Your task to perform on an android device: Turn on the flashlight Image 0: 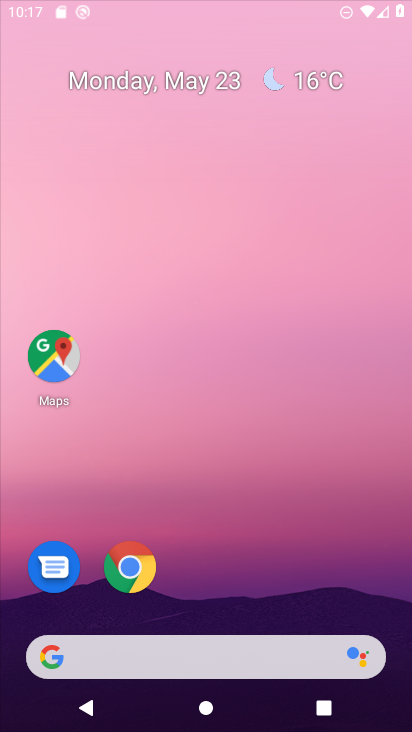
Step 0: click (280, 6)
Your task to perform on an android device: Turn on the flashlight Image 1: 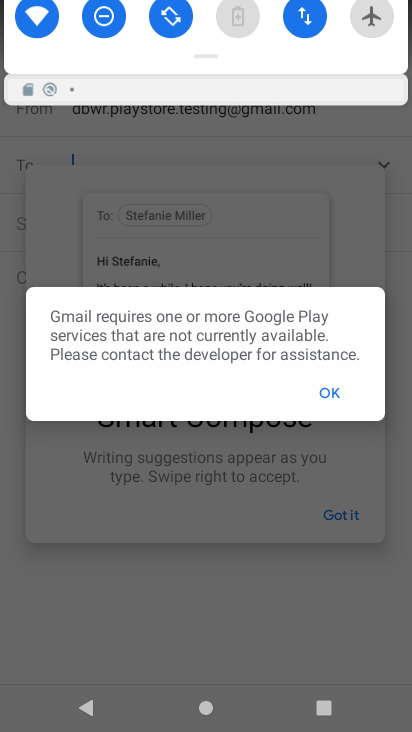
Step 1: drag from (196, 565) to (290, 111)
Your task to perform on an android device: Turn on the flashlight Image 2: 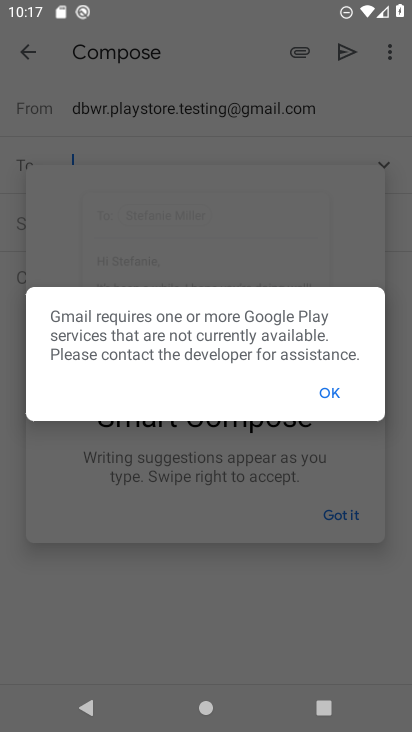
Step 2: press home button
Your task to perform on an android device: Turn on the flashlight Image 3: 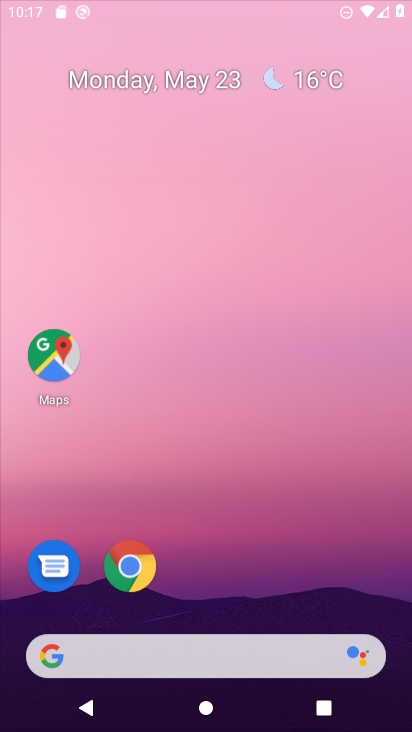
Step 3: drag from (214, 550) to (285, 74)
Your task to perform on an android device: Turn on the flashlight Image 4: 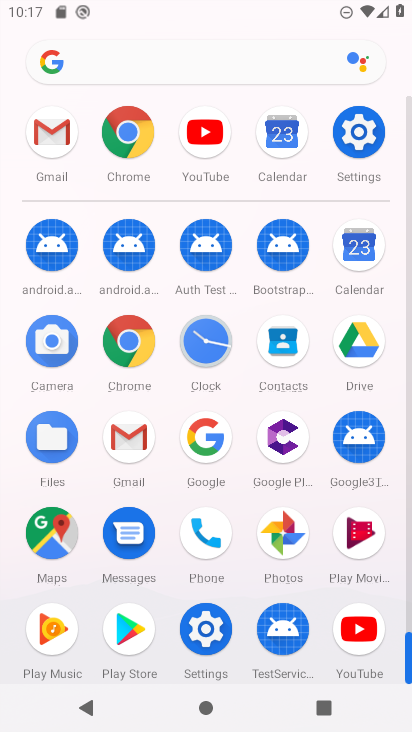
Step 4: click (347, 125)
Your task to perform on an android device: Turn on the flashlight Image 5: 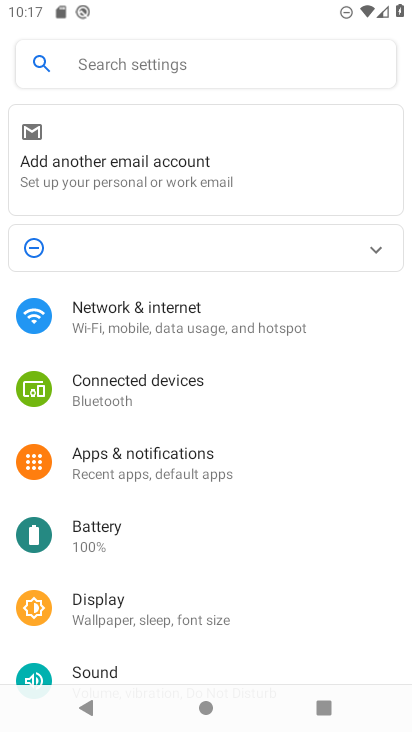
Step 5: click (139, 67)
Your task to perform on an android device: Turn on the flashlight Image 6: 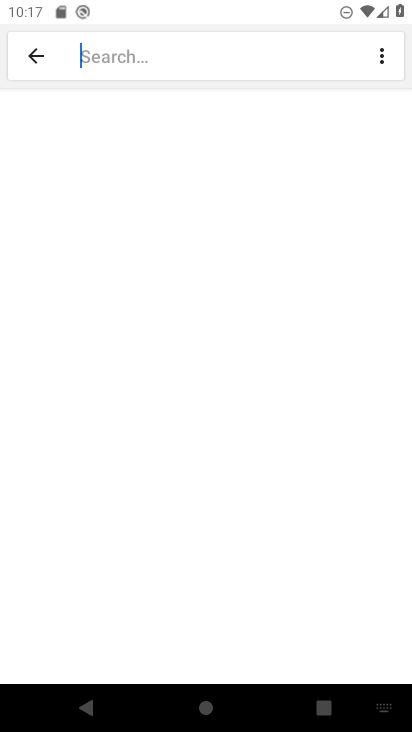
Step 6: type "flashlight"
Your task to perform on an android device: Turn on the flashlight Image 7: 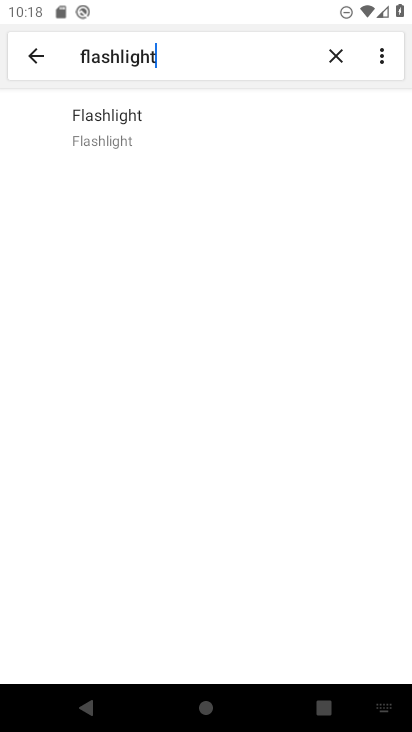
Step 7: click (139, 105)
Your task to perform on an android device: Turn on the flashlight Image 8: 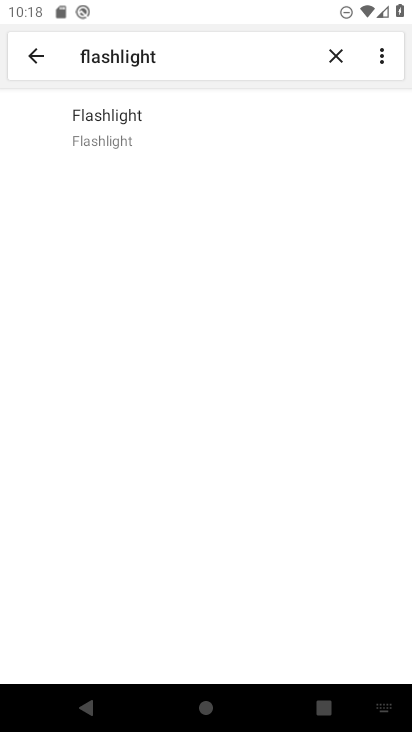
Step 8: task complete